Your task to perform on an android device: toggle notification dots Image 0: 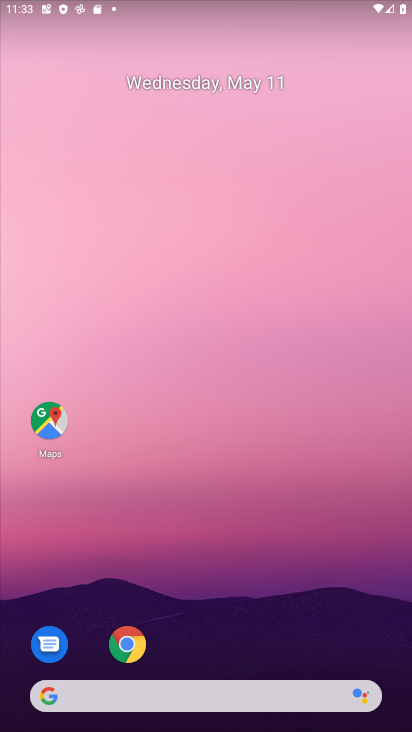
Step 0: drag from (210, 661) to (132, 1)
Your task to perform on an android device: toggle notification dots Image 1: 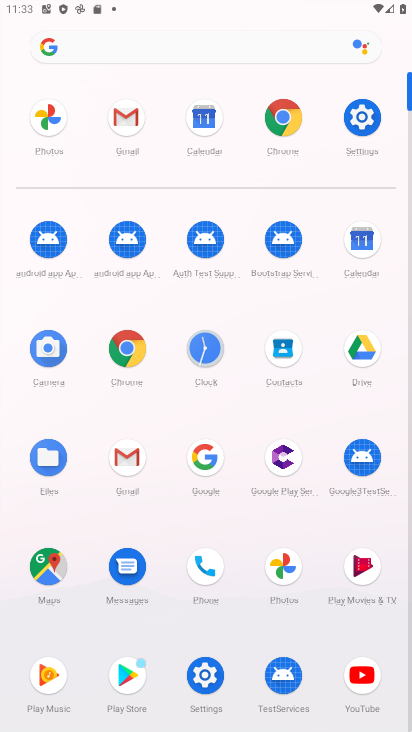
Step 1: click (214, 686)
Your task to perform on an android device: toggle notification dots Image 2: 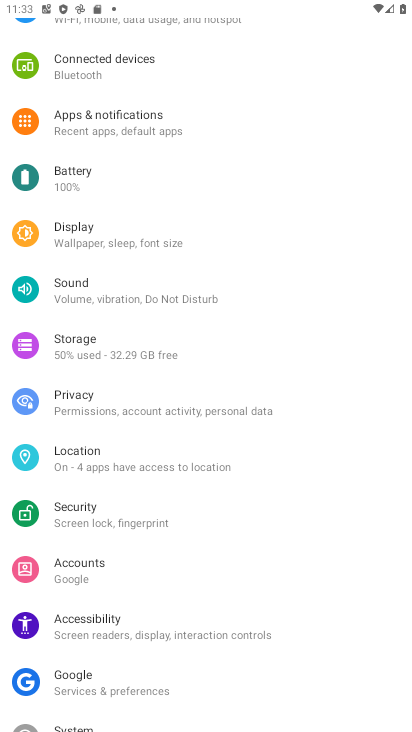
Step 2: drag from (167, 584) to (152, 374)
Your task to perform on an android device: toggle notification dots Image 3: 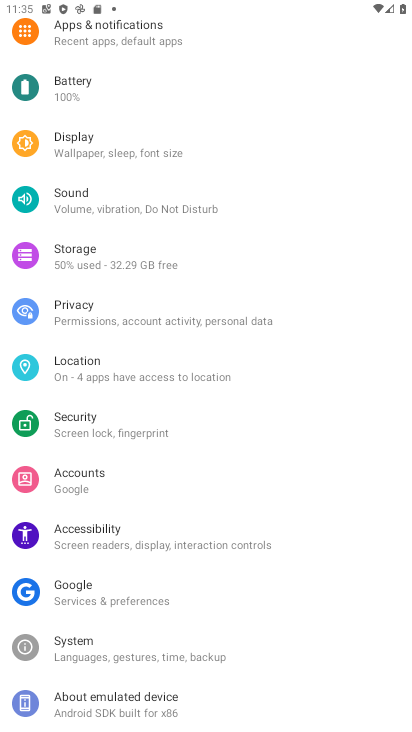
Step 3: click (73, 48)
Your task to perform on an android device: toggle notification dots Image 4: 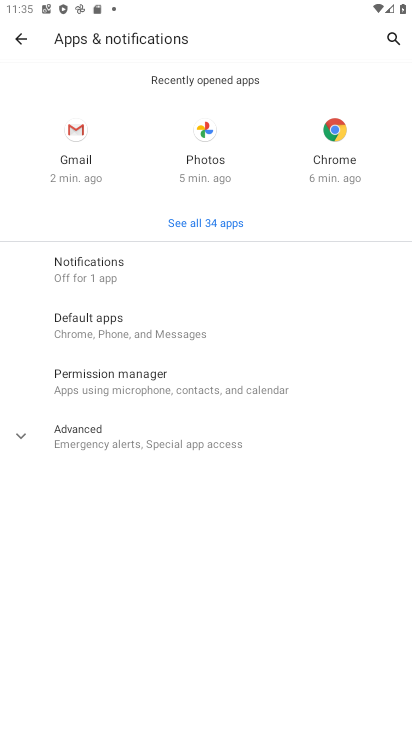
Step 4: click (181, 446)
Your task to perform on an android device: toggle notification dots Image 5: 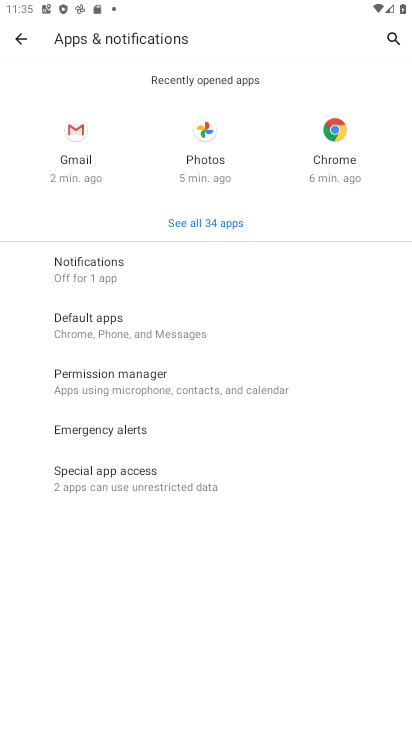
Step 5: click (184, 464)
Your task to perform on an android device: toggle notification dots Image 6: 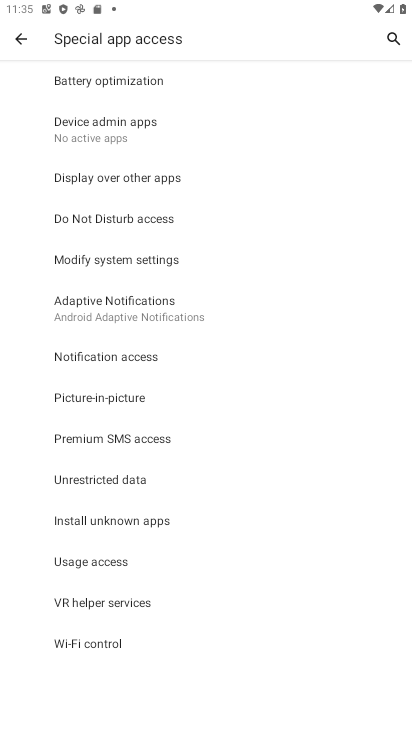
Step 6: click (32, 52)
Your task to perform on an android device: toggle notification dots Image 7: 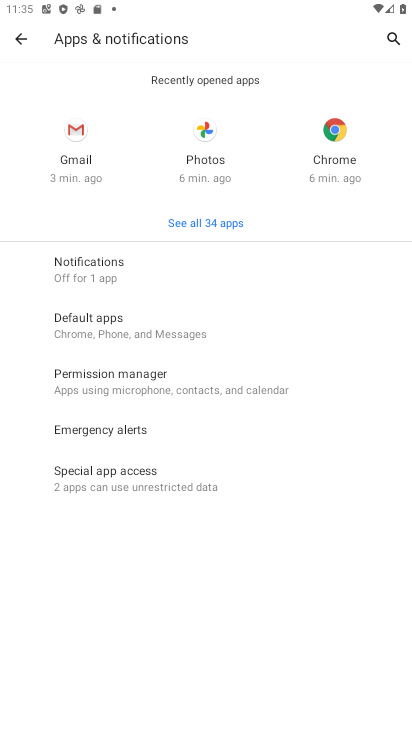
Step 7: click (15, 34)
Your task to perform on an android device: toggle notification dots Image 8: 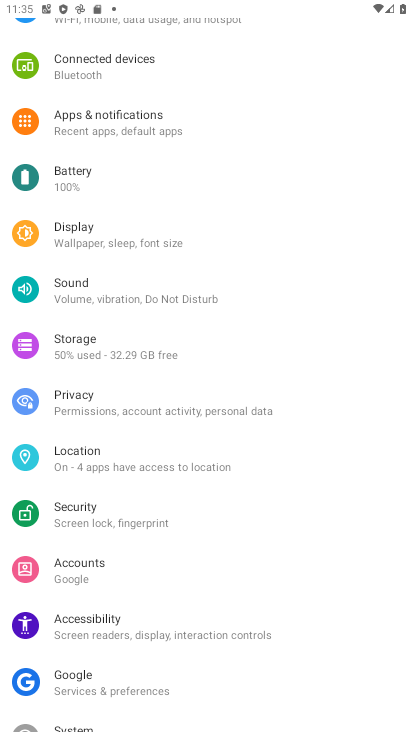
Step 8: click (108, 123)
Your task to perform on an android device: toggle notification dots Image 9: 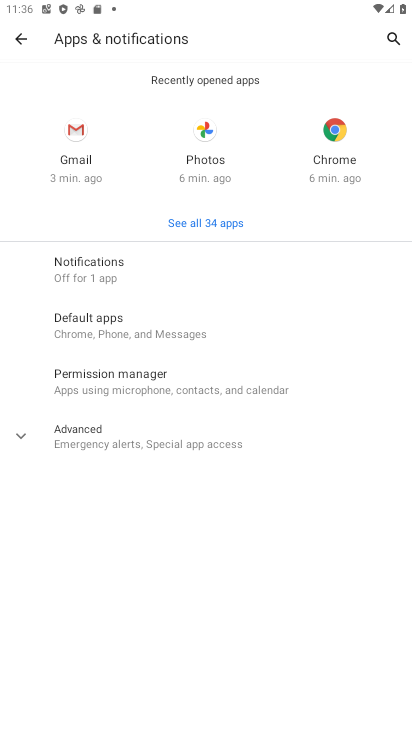
Step 9: click (157, 284)
Your task to perform on an android device: toggle notification dots Image 10: 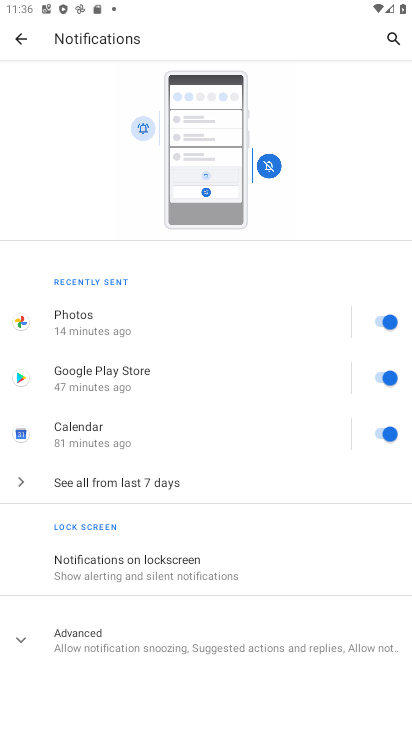
Step 10: click (205, 625)
Your task to perform on an android device: toggle notification dots Image 11: 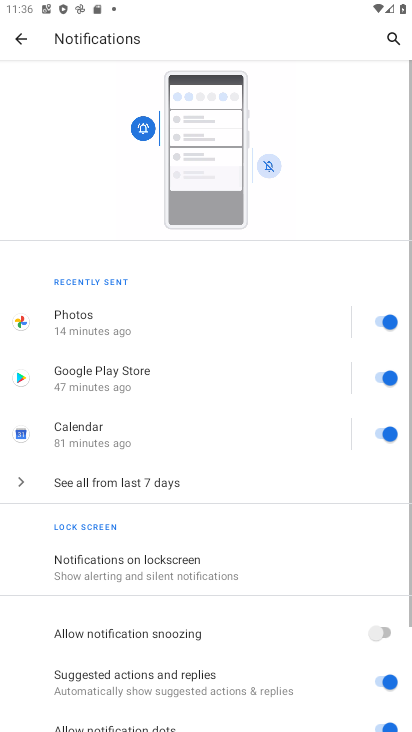
Step 11: drag from (247, 600) to (255, 335)
Your task to perform on an android device: toggle notification dots Image 12: 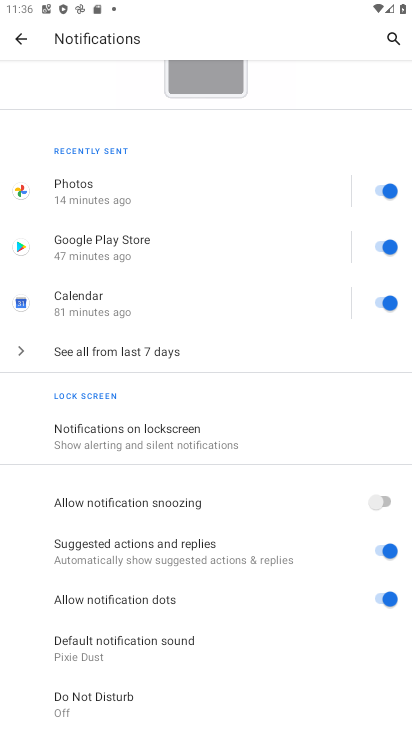
Step 12: click (328, 588)
Your task to perform on an android device: toggle notification dots Image 13: 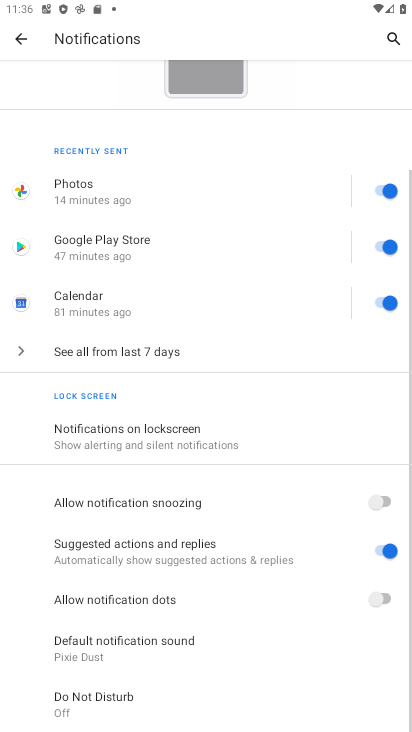
Step 13: task complete